Your task to perform on an android device: Go to CNN.com Image 0: 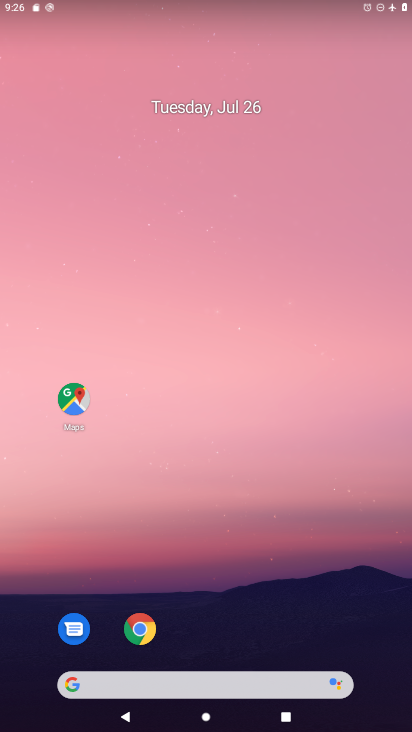
Step 0: click (134, 639)
Your task to perform on an android device: Go to CNN.com Image 1: 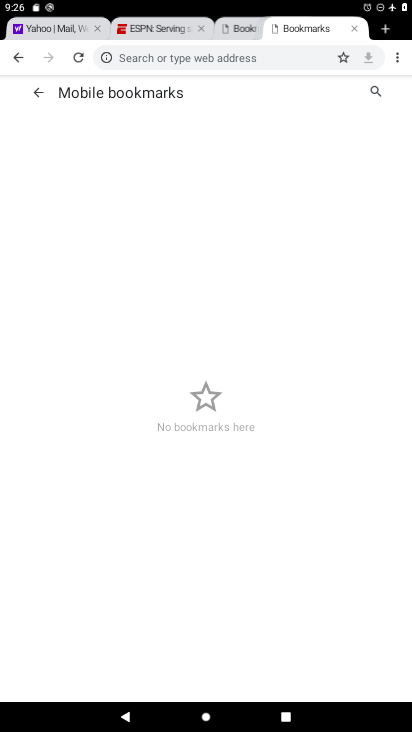
Step 1: click (381, 25)
Your task to perform on an android device: Go to CNN.com Image 2: 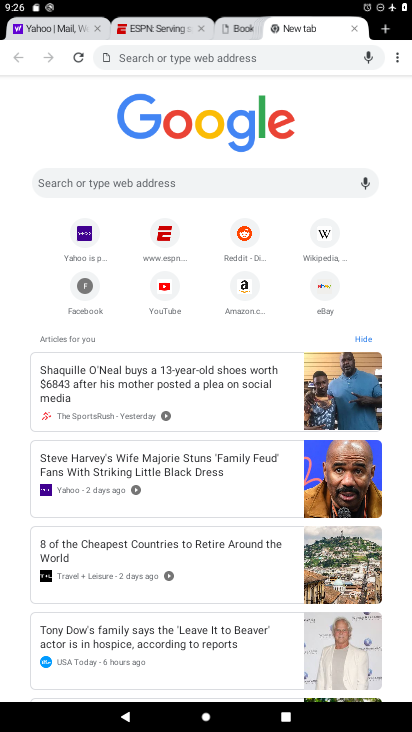
Step 2: click (205, 60)
Your task to perform on an android device: Go to CNN.com Image 3: 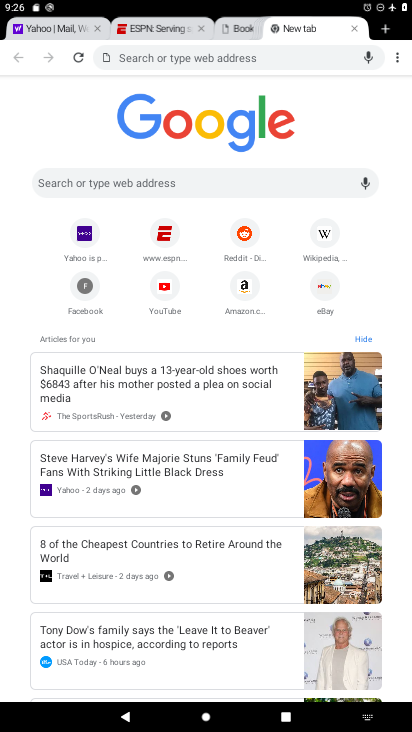
Step 3: type "CNN.com"
Your task to perform on an android device: Go to CNN.com Image 4: 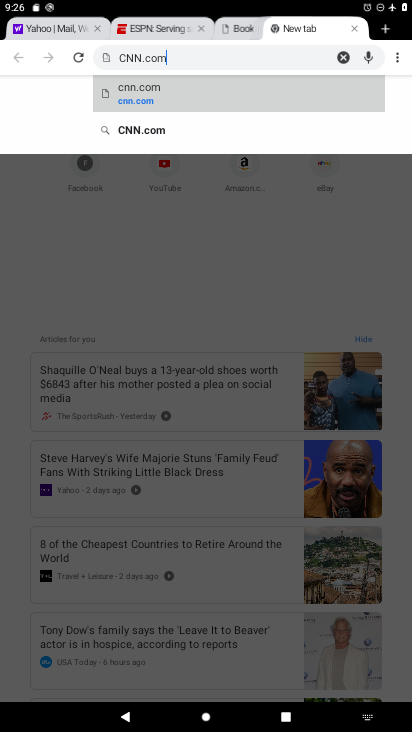
Step 4: type ""
Your task to perform on an android device: Go to CNN.com Image 5: 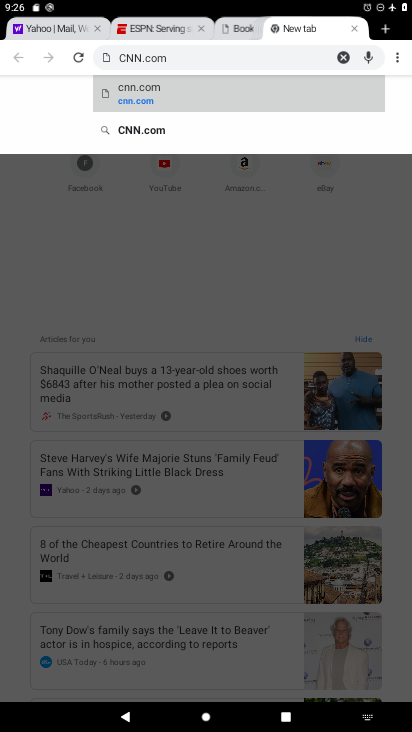
Step 5: click (146, 97)
Your task to perform on an android device: Go to CNN.com Image 6: 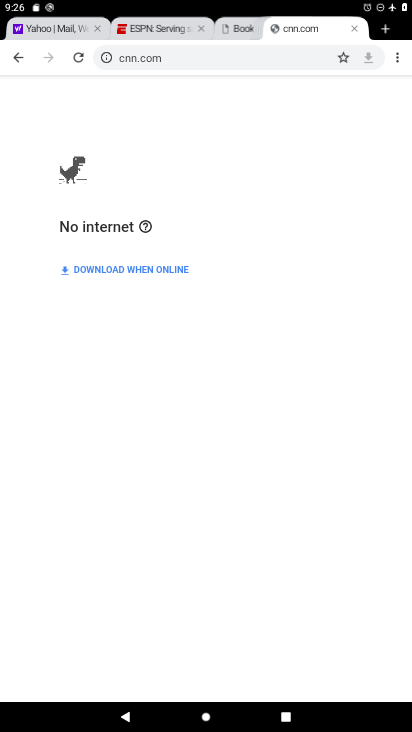
Step 6: task complete